Your task to perform on an android device: What's on my calendar tomorrow? Image 0: 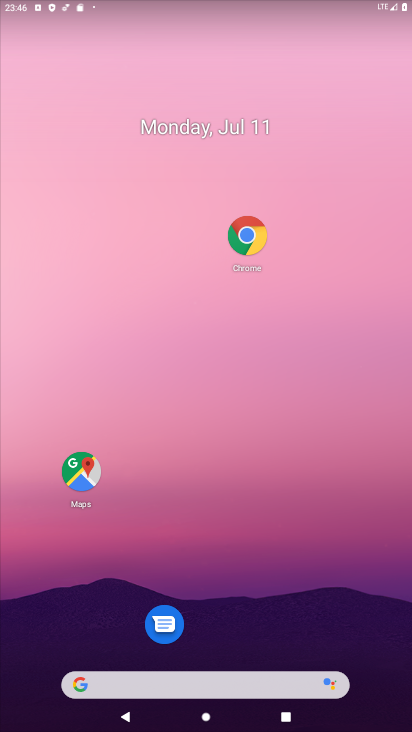
Step 0: drag from (209, 636) to (179, 258)
Your task to perform on an android device: What's on my calendar tomorrow? Image 1: 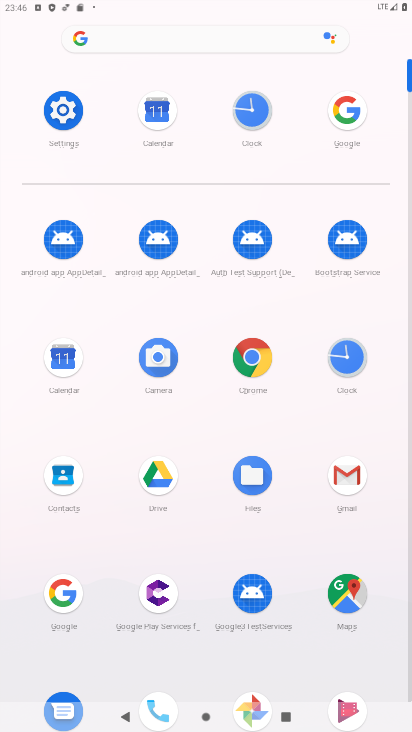
Step 1: click (174, 121)
Your task to perform on an android device: What's on my calendar tomorrow? Image 2: 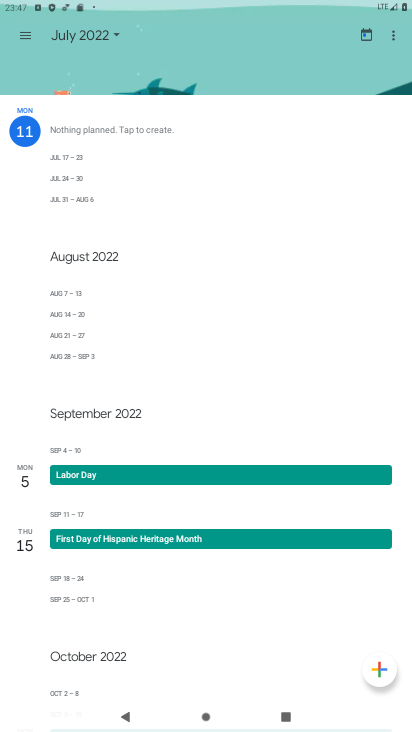
Step 2: click (122, 42)
Your task to perform on an android device: What's on my calendar tomorrow? Image 3: 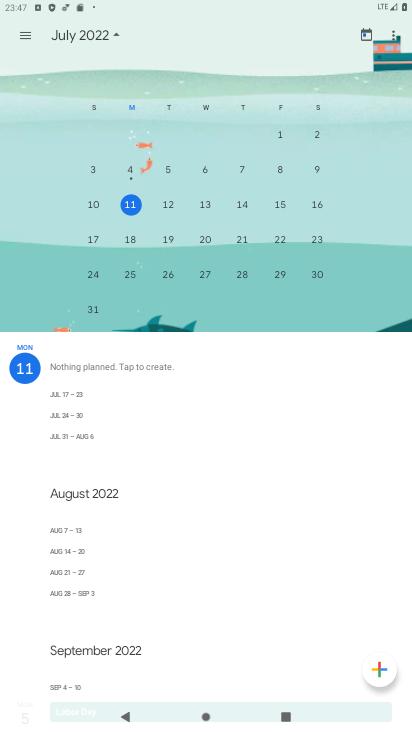
Step 3: click (138, 214)
Your task to perform on an android device: What's on my calendar tomorrow? Image 4: 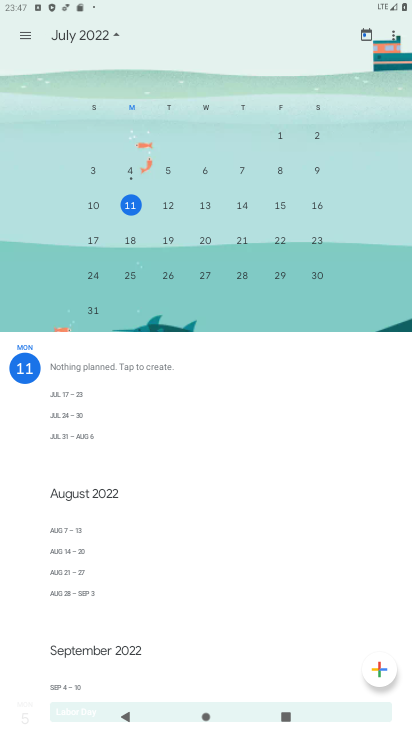
Step 4: click (165, 202)
Your task to perform on an android device: What's on my calendar tomorrow? Image 5: 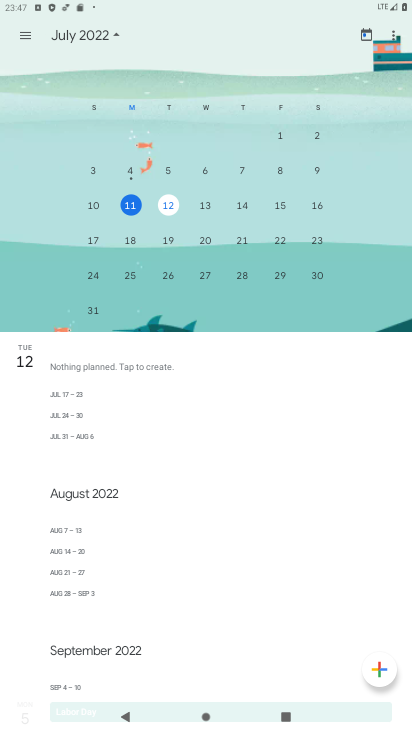
Step 5: task complete